Your task to perform on an android device: turn on data saver in the chrome app Image 0: 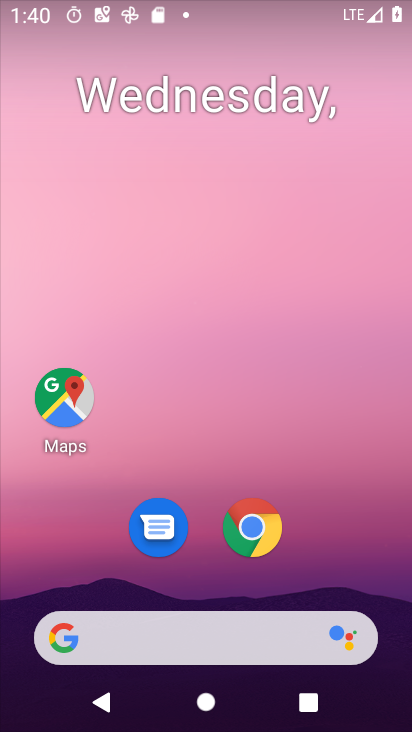
Step 0: drag from (241, 654) to (190, 51)
Your task to perform on an android device: turn on data saver in the chrome app Image 1: 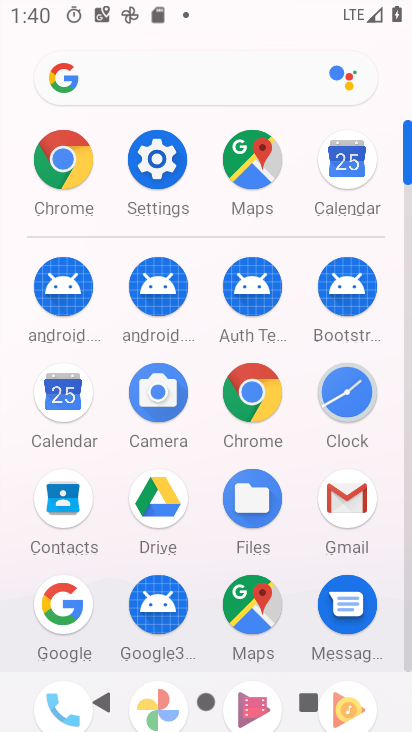
Step 1: click (252, 409)
Your task to perform on an android device: turn on data saver in the chrome app Image 2: 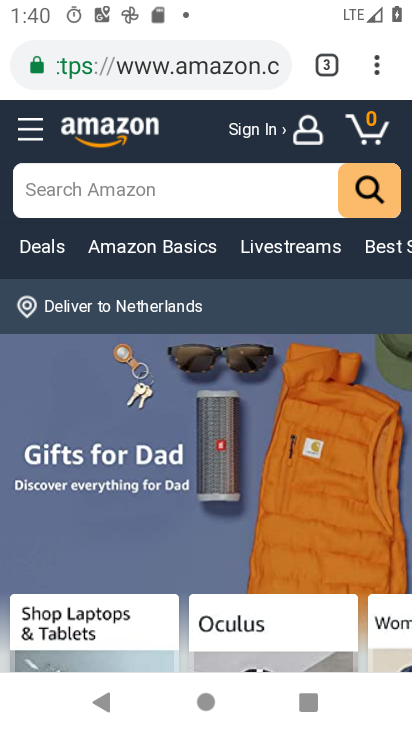
Step 2: drag from (373, 66) to (167, 581)
Your task to perform on an android device: turn on data saver in the chrome app Image 3: 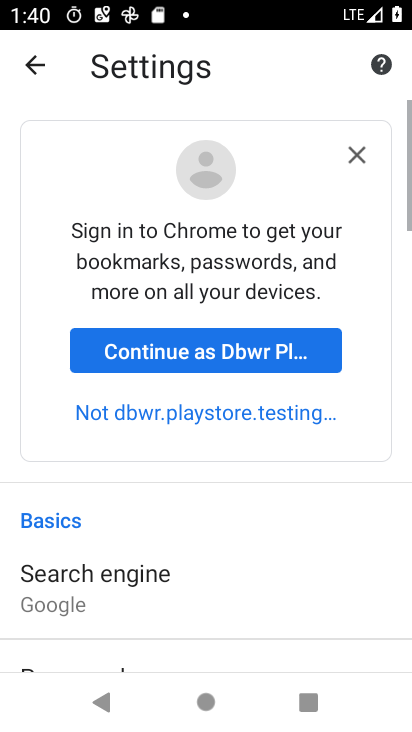
Step 3: drag from (177, 630) to (147, 103)
Your task to perform on an android device: turn on data saver in the chrome app Image 4: 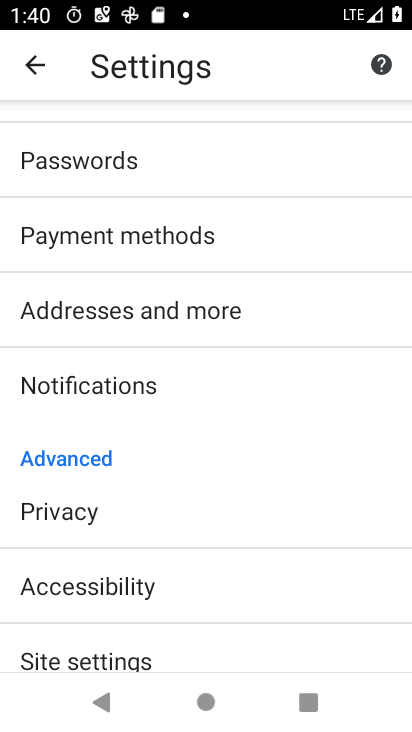
Step 4: drag from (114, 644) to (178, 265)
Your task to perform on an android device: turn on data saver in the chrome app Image 5: 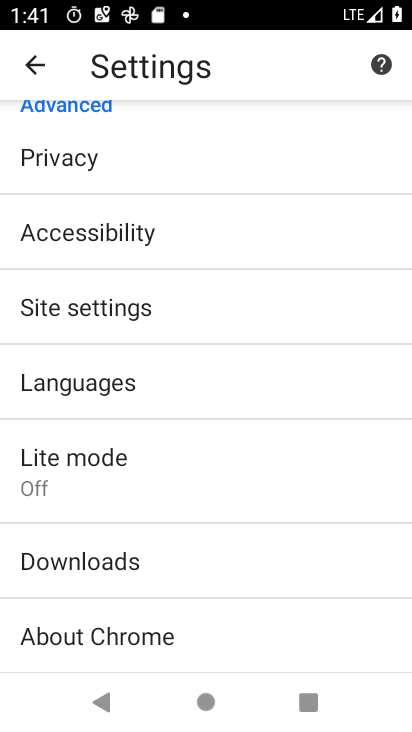
Step 5: click (139, 489)
Your task to perform on an android device: turn on data saver in the chrome app Image 6: 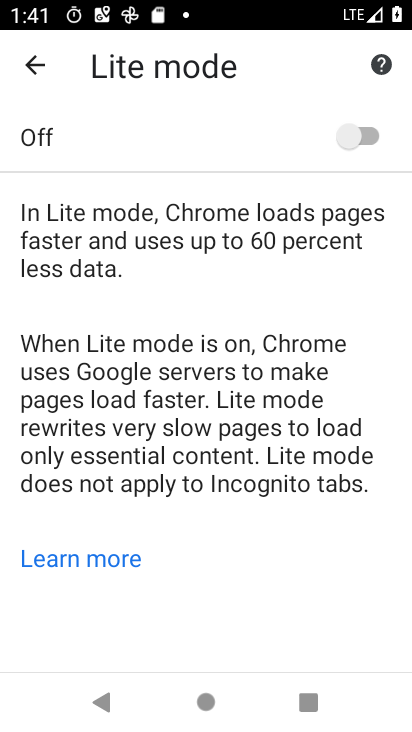
Step 6: click (364, 128)
Your task to perform on an android device: turn on data saver in the chrome app Image 7: 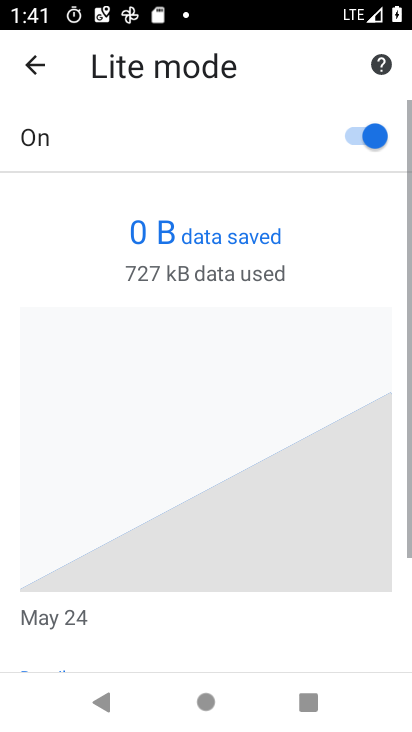
Step 7: task complete